Your task to perform on an android device: Open sound settings Image 0: 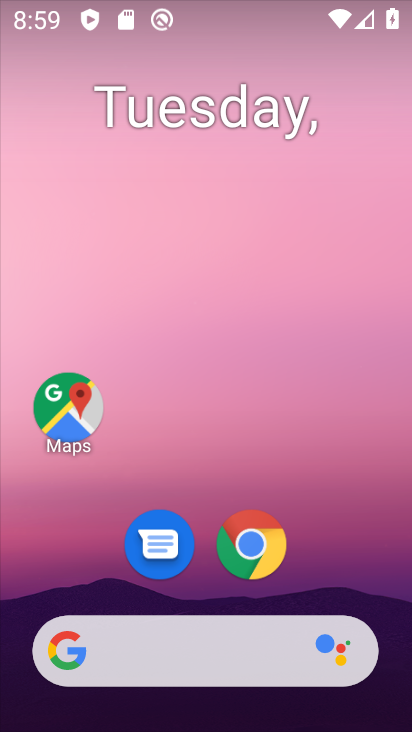
Step 0: drag from (205, 610) to (206, 5)
Your task to perform on an android device: Open sound settings Image 1: 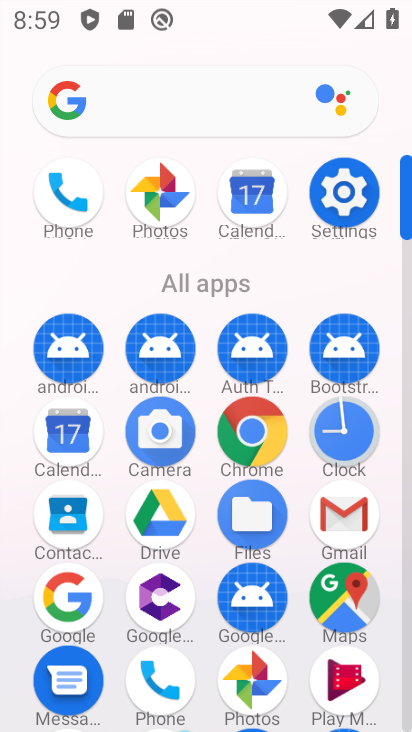
Step 1: click (348, 185)
Your task to perform on an android device: Open sound settings Image 2: 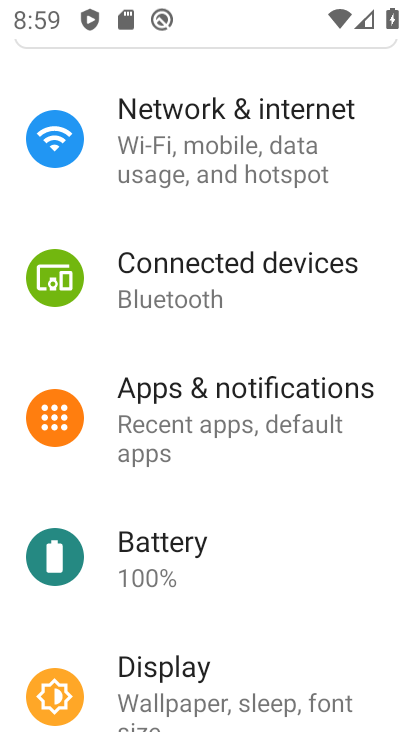
Step 2: drag from (280, 597) to (274, 236)
Your task to perform on an android device: Open sound settings Image 3: 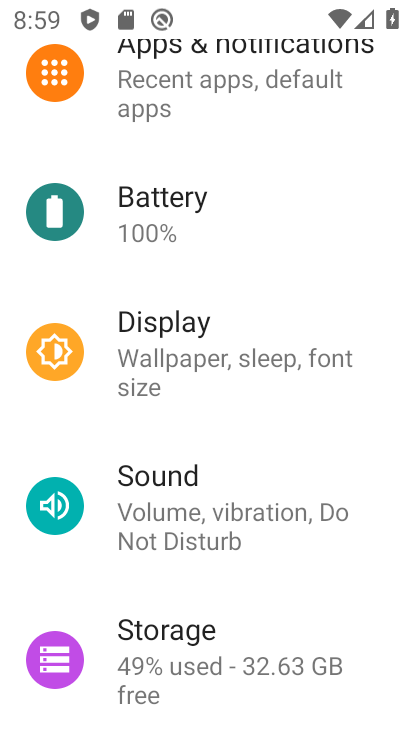
Step 3: click (239, 484)
Your task to perform on an android device: Open sound settings Image 4: 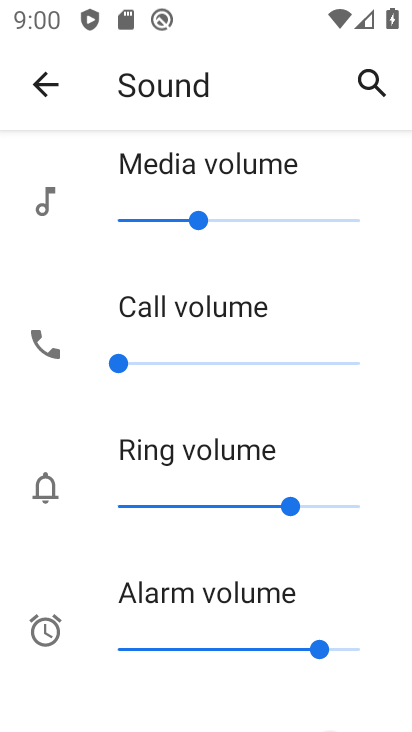
Step 4: task complete